Your task to perform on an android device: What's the weather going to be tomorrow? Image 0: 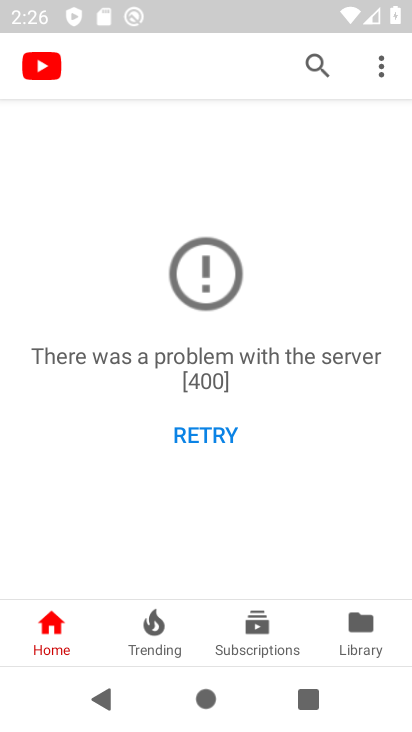
Step 0: press home button
Your task to perform on an android device: What's the weather going to be tomorrow? Image 1: 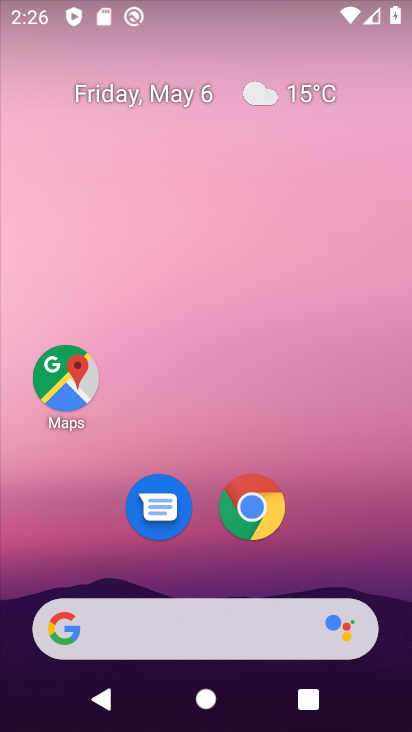
Step 1: drag from (379, 570) to (364, 102)
Your task to perform on an android device: What's the weather going to be tomorrow? Image 2: 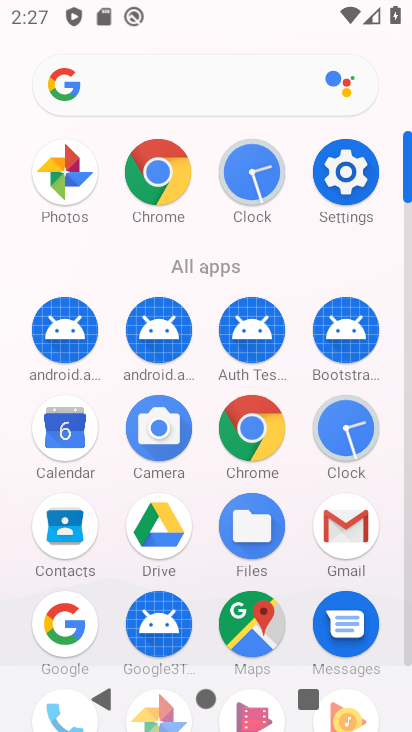
Step 2: click (258, 450)
Your task to perform on an android device: What's the weather going to be tomorrow? Image 3: 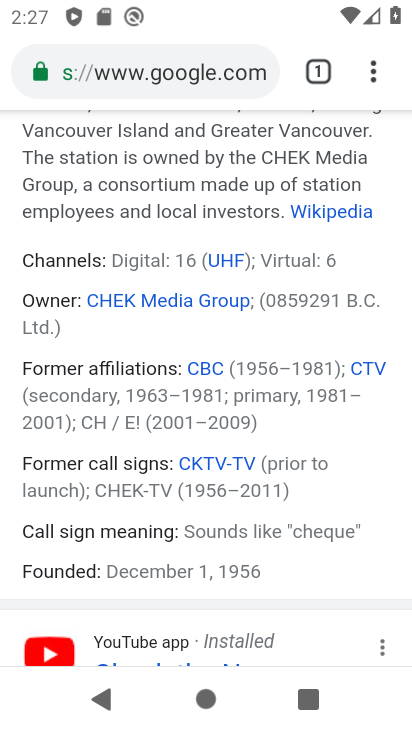
Step 3: click (111, 77)
Your task to perform on an android device: What's the weather going to be tomorrow? Image 4: 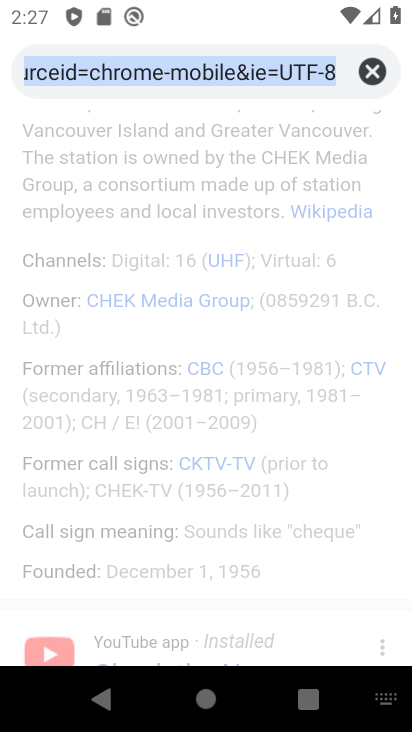
Step 4: click (364, 66)
Your task to perform on an android device: What's the weather going to be tomorrow? Image 5: 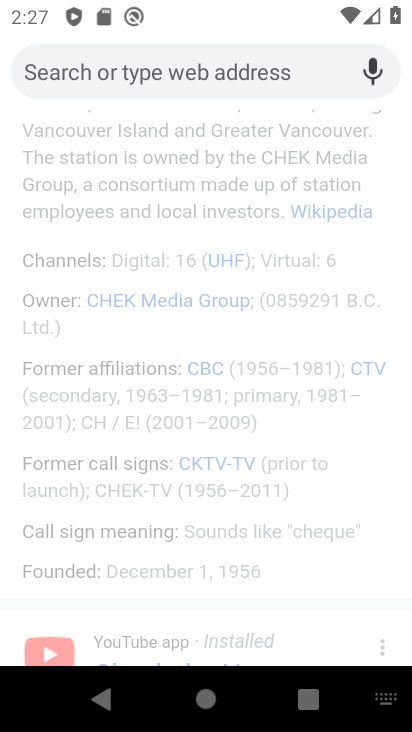
Step 5: type "what's the weather going to be tomorrow"
Your task to perform on an android device: What's the weather going to be tomorrow? Image 6: 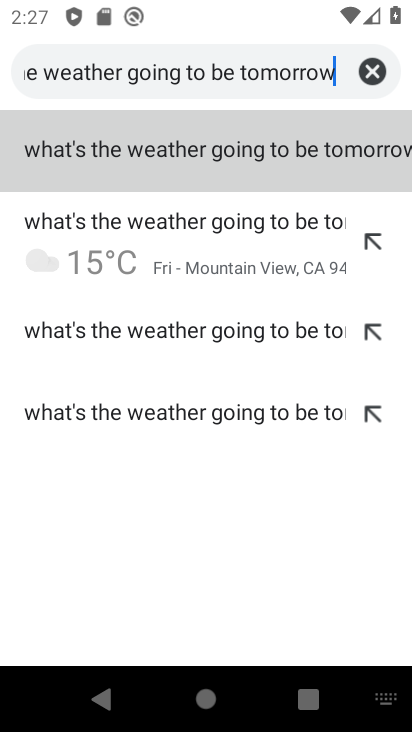
Step 6: click (145, 168)
Your task to perform on an android device: What's the weather going to be tomorrow? Image 7: 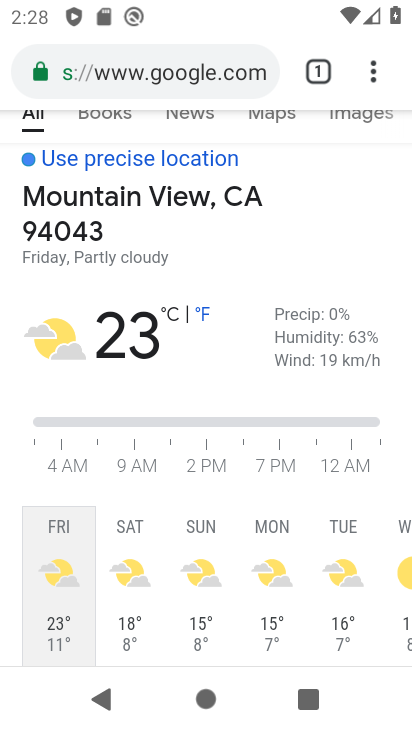
Step 7: task complete